Your task to perform on an android device: move a message to another label in the gmail app Image 0: 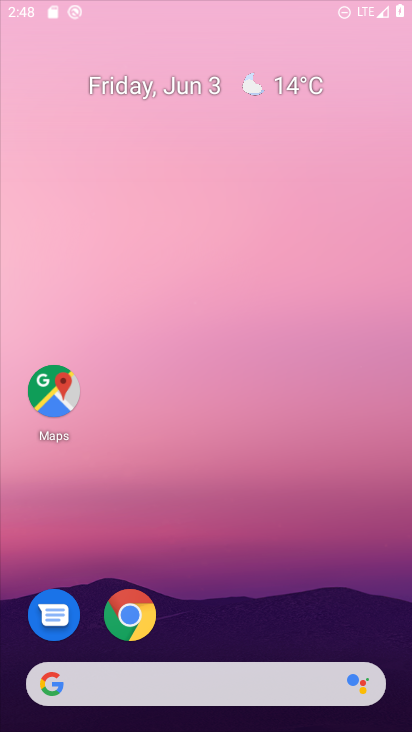
Step 0: click (336, 25)
Your task to perform on an android device: move a message to another label in the gmail app Image 1: 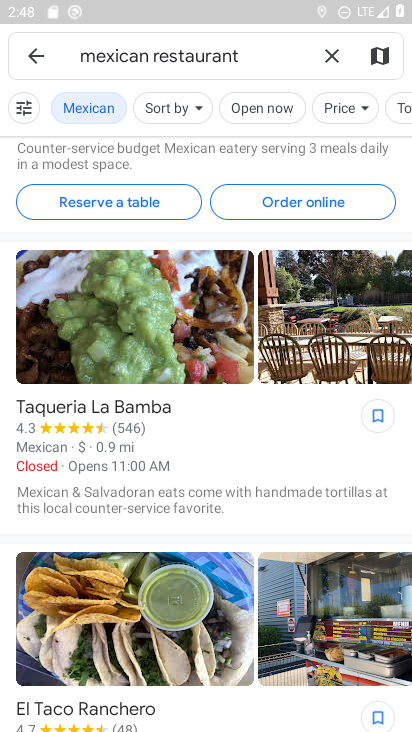
Step 1: press home button
Your task to perform on an android device: move a message to another label in the gmail app Image 2: 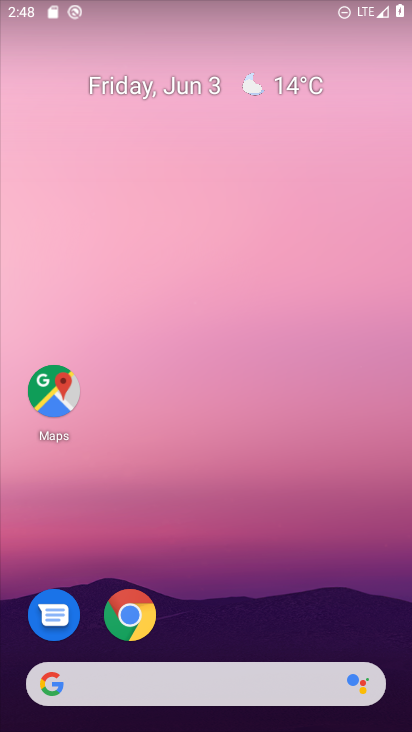
Step 2: drag from (182, 592) to (204, 65)
Your task to perform on an android device: move a message to another label in the gmail app Image 3: 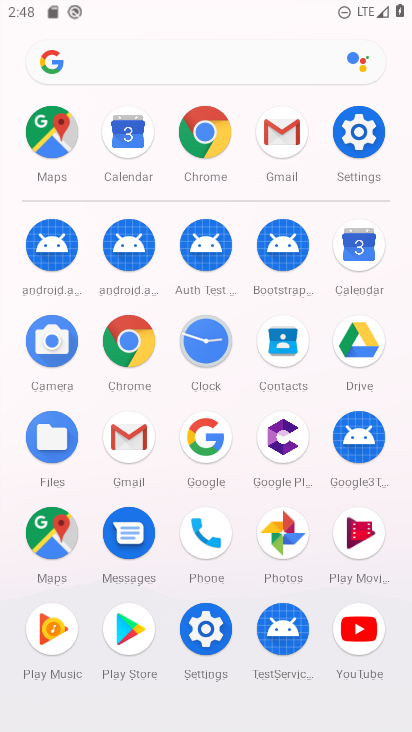
Step 3: click (120, 451)
Your task to perform on an android device: move a message to another label in the gmail app Image 4: 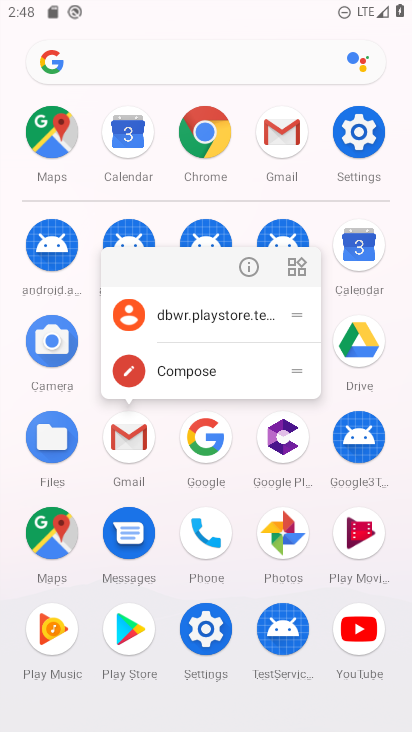
Step 4: click (183, 319)
Your task to perform on an android device: move a message to another label in the gmail app Image 5: 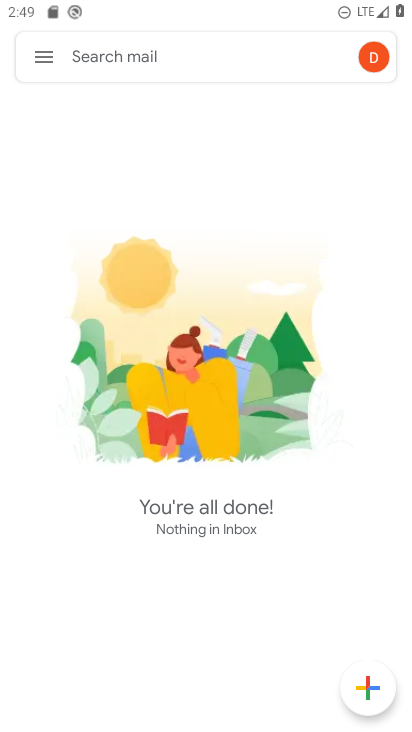
Step 5: click (37, 54)
Your task to perform on an android device: move a message to another label in the gmail app Image 6: 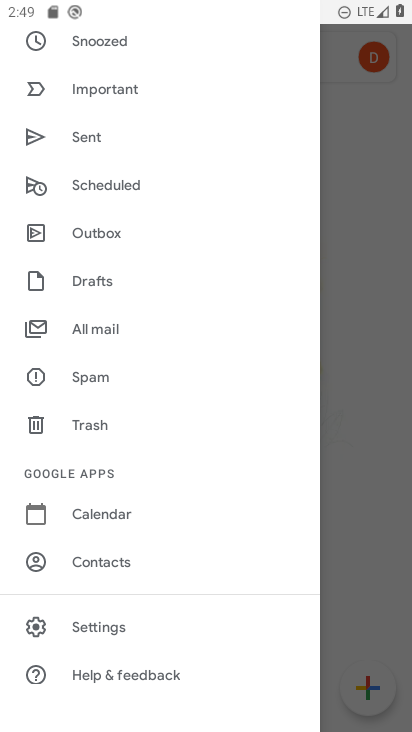
Step 6: drag from (117, 238) to (187, 516)
Your task to perform on an android device: move a message to another label in the gmail app Image 7: 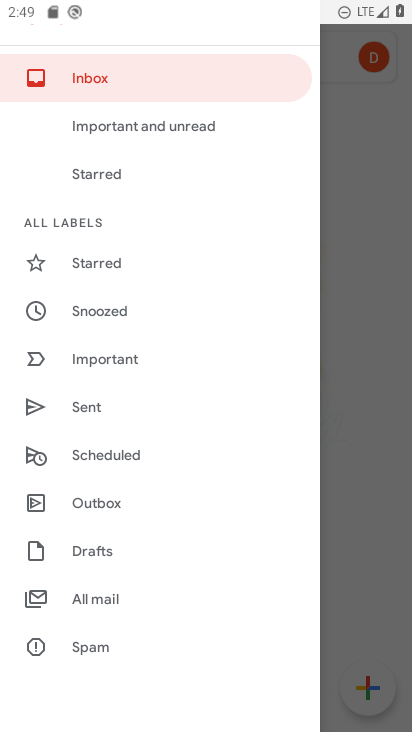
Step 7: drag from (128, 525) to (175, 227)
Your task to perform on an android device: move a message to another label in the gmail app Image 8: 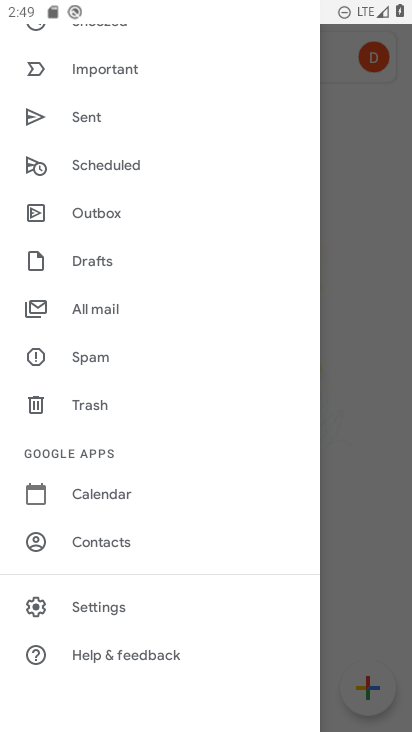
Step 8: drag from (177, 205) to (209, 723)
Your task to perform on an android device: move a message to another label in the gmail app Image 9: 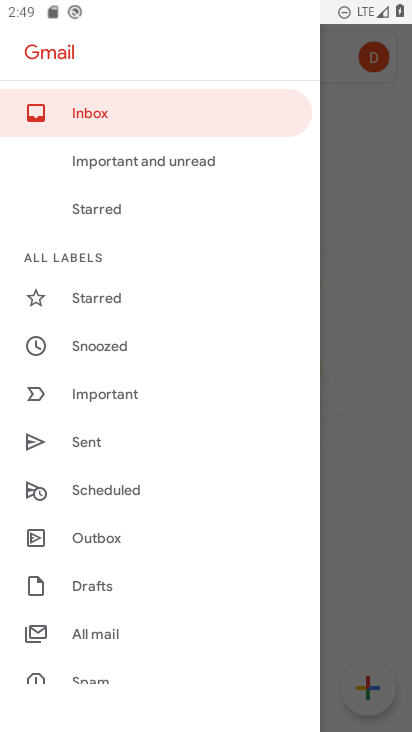
Step 9: click (177, 103)
Your task to perform on an android device: move a message to another label in the gmail app Image 10: 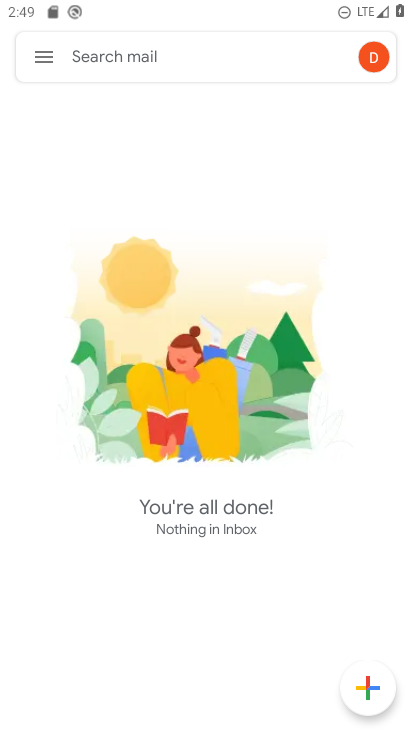
Step 10: task complete